Your task to perform on an android device: change text size in settings app Image 0: 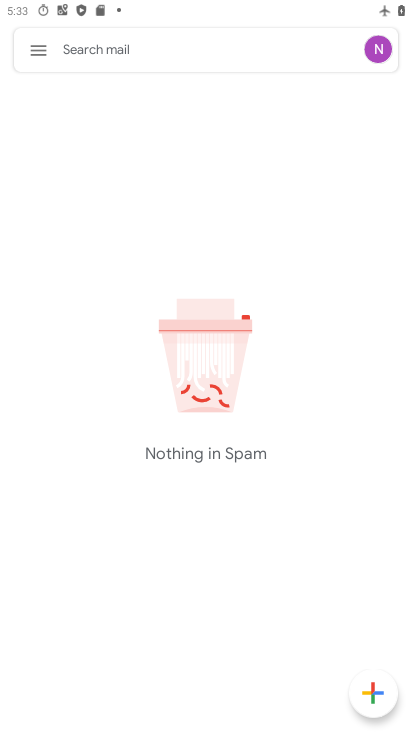
Step 0: click (40, 49)
Your task to perform on an android device: change text size in settings app Image 1: 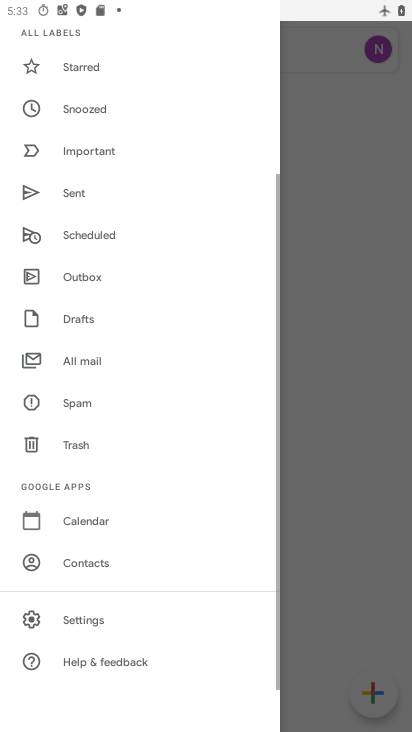
Step 1: click (108, 615)
Your task to perform on an android device: change text size in settings app Image 2: 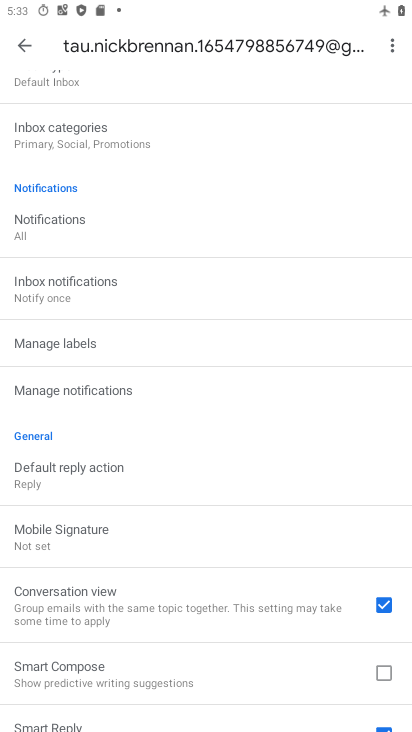
Step 2: press back button
Your task to perform on an android device: change text size in settings app Image 3: 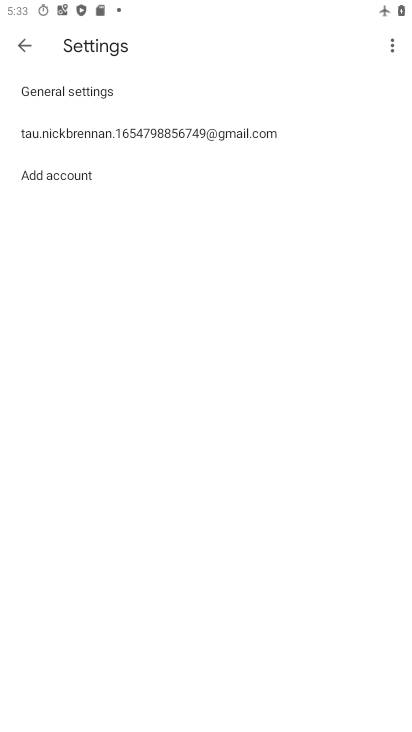
Step 3: press home button
Your task to perform on an android device: change text size in settings app Image 4: 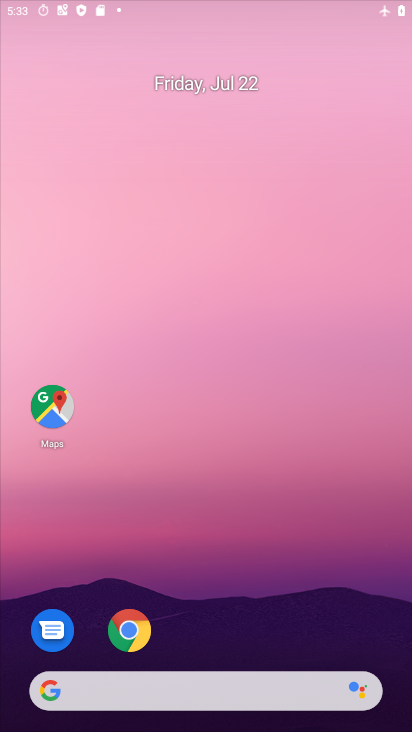
Step 4: drag from (188, 718) to (202, 70)
Your task to perform on an android device: change text size in settings app Image 5: 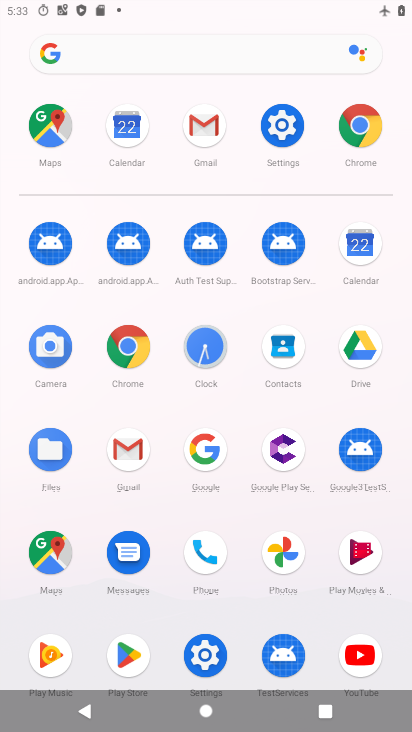
Step 5: click (212, 655)
Your task to perform on an android device: change text size in settings app Image 6: 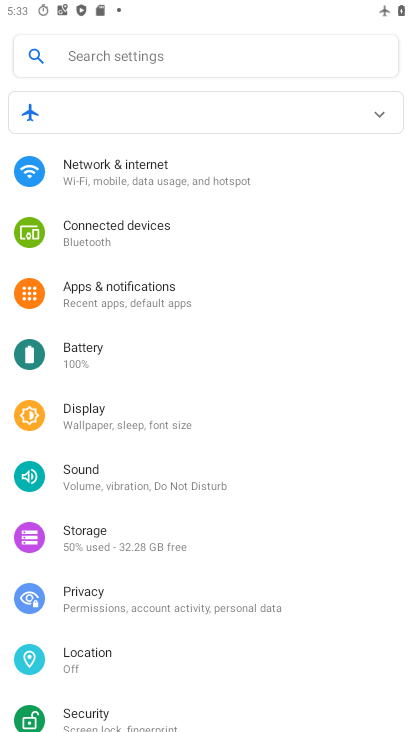
Step 6: drag from (163, 700) to (148, 86)
Your task to perform on an android device: change text size in settings app Image 7: 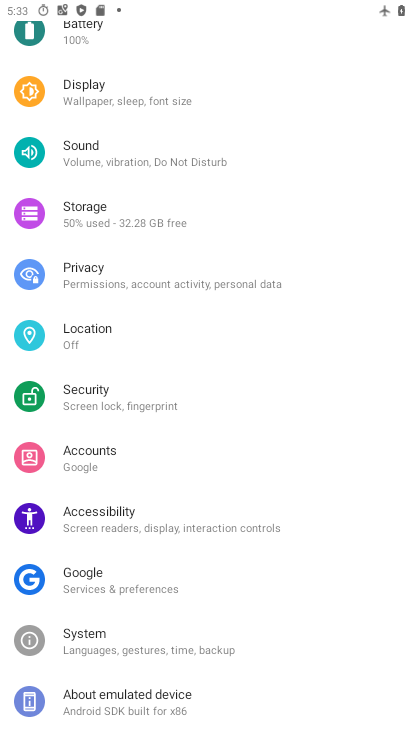
Step 7: click (137, 515)
Your task to perform on an android device: change text size in settings app Image 8: 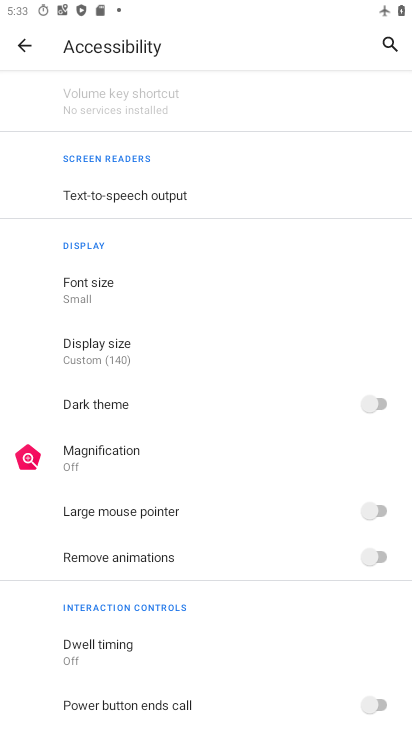
Step 8: click (94, 276)
Your task to perform on an android device: change text size in settings app Image 9: 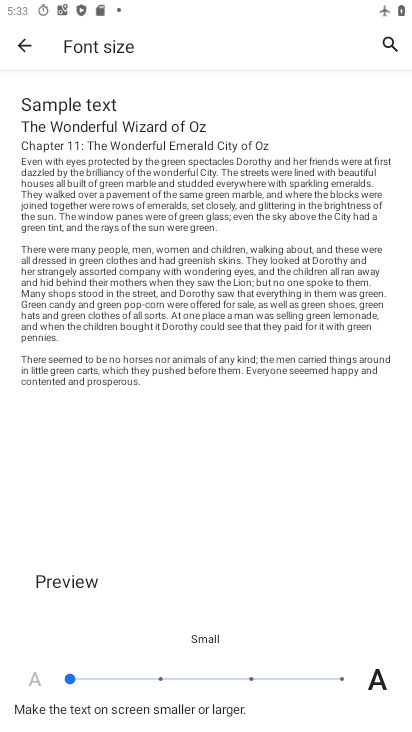
Step 9: click (247, 679)
Your task to perform on an android device: change text size in settings app Image 10: 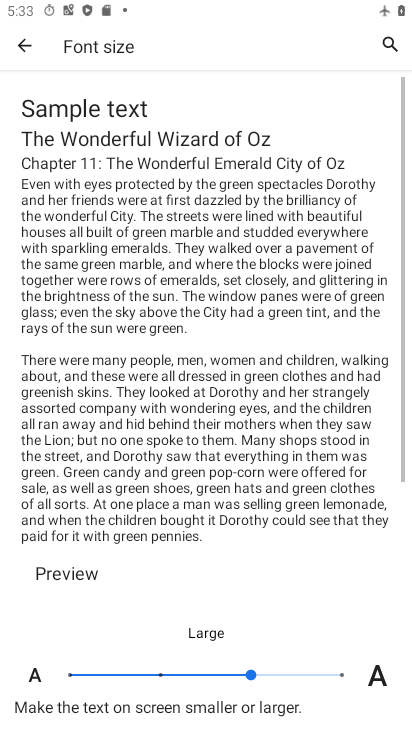
Step 10: task complete